Your task to perform on an android device: Go to calendar. Show me events next week Image 0: 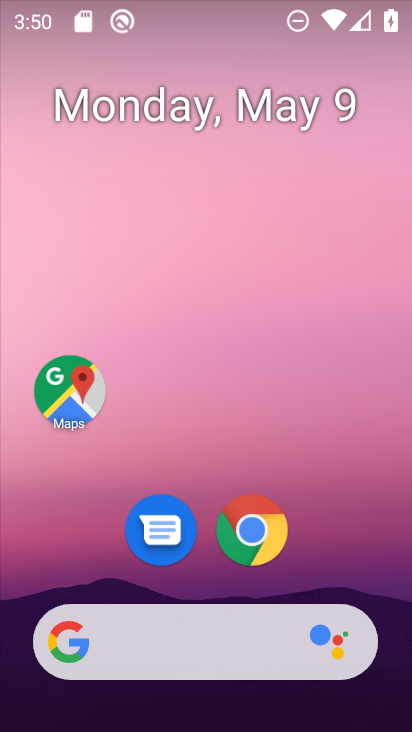
Step 0: press home button
Your task to perform on an android device: Go to calendar. Show me events next week Image 1: 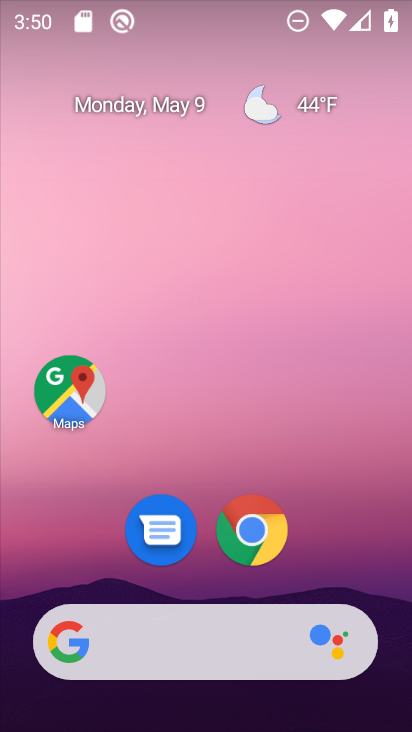
Step 1: drag from (207, 567) to (194, 105)
Your task to perform on an android device: Go to calendar. Show me events next week Image 2: 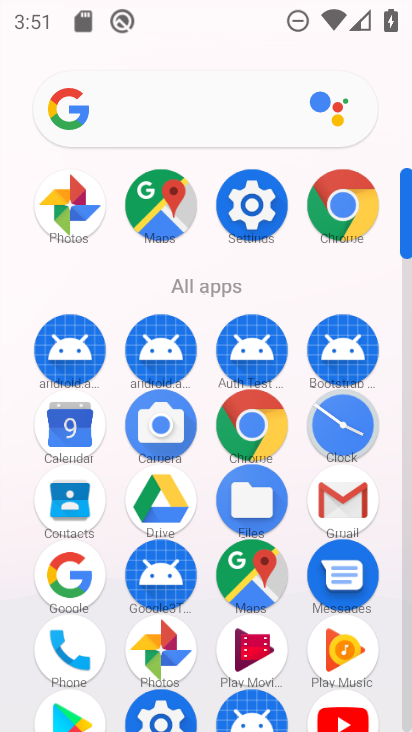
Step 2: click (75, 430)
Your task to perform on an android device: Go to calendar. Show me events next week Image 3: 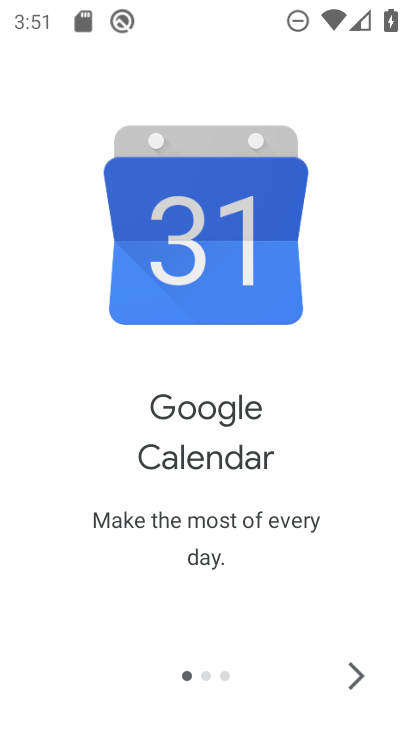
Step 3: click (348, 681)
Your task to perform on an android device: Go to calendar. Show me events next week Image 4: 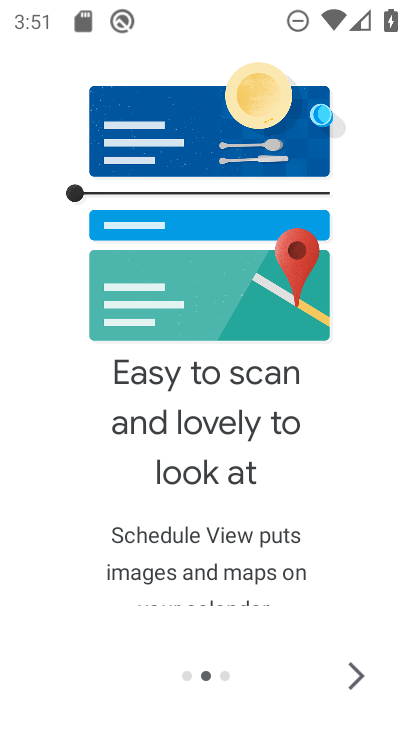
Step 4: click (361, 663)
Your task to perform on an android device: Go to calendar. Show me events next week Image 5: 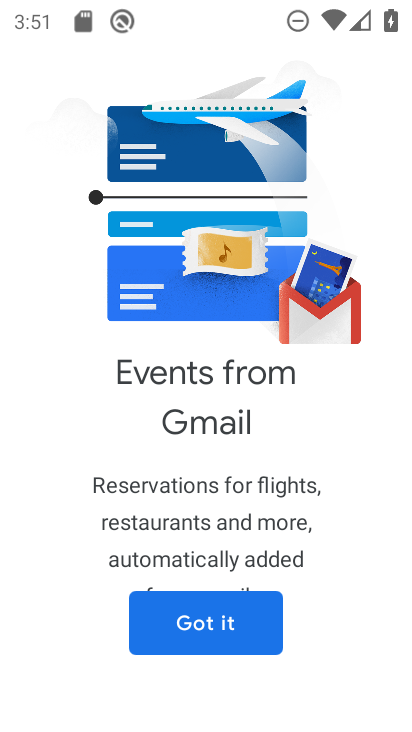
Step 5: click (218, 620)
Your task to perform on an android device: Go to calendar. Show me events next week Image 6: 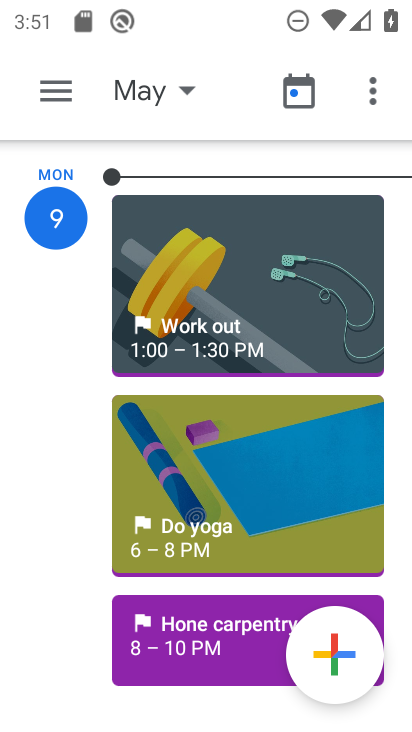
Step 6: click (59, 85)
Your task to perform on an android device: Go to calendar. Show me events next week Image 7: 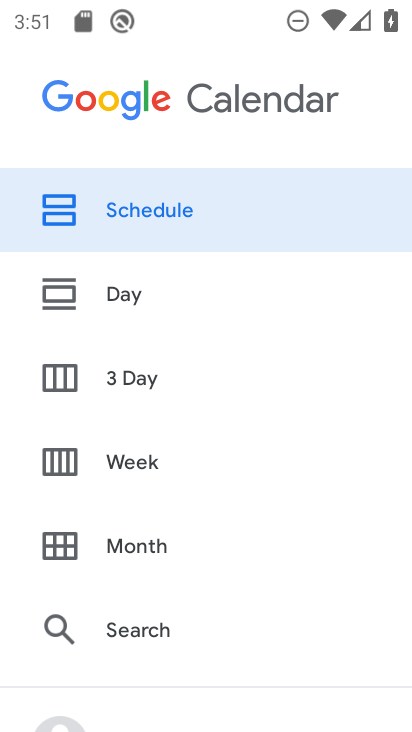
Step 7: click (90, 458)
Your task to perform on an android device: Go to calendar. Show me events next week Image 8: 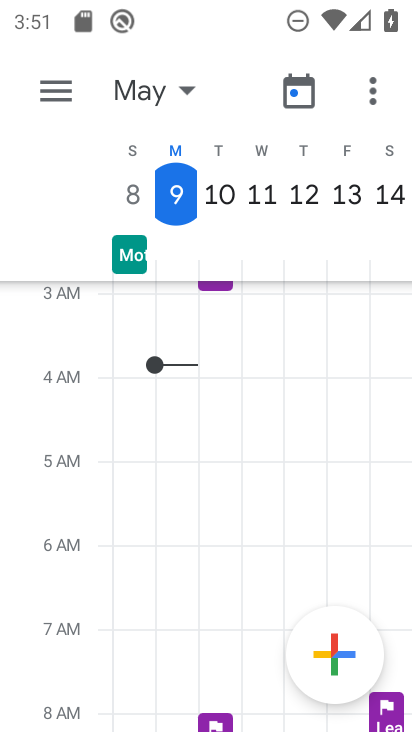
Step 8: drag from (396, 189) to (109, 178)
Your task to perform on an android device: Go to calendar. Show me events next week Image 9: 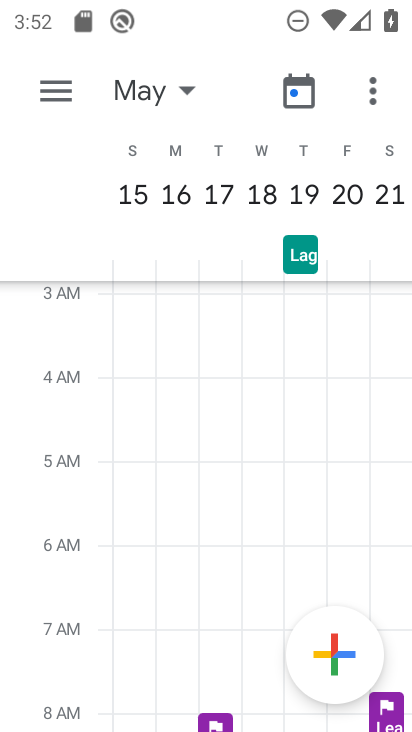
Step 9: click (137, 190)
Your task to perform on an android device: Go to calendar. Show me events next week Image 10: 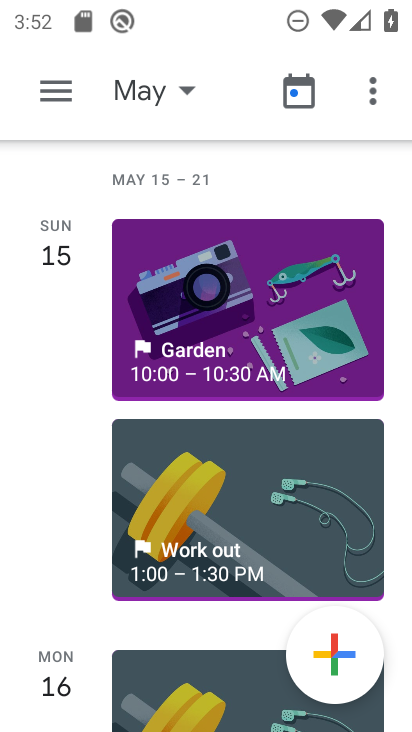
Step 10: click (47, 90)
Your task to perform on an android device: Go to calendar. Show me events next week Image 11: 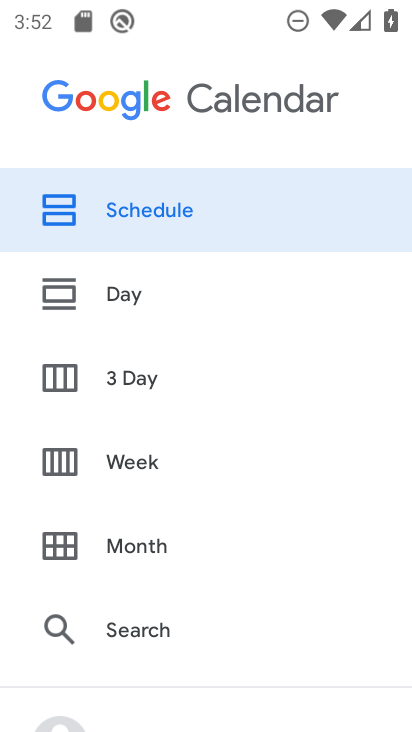
Step 11: drag from (93, 711) to (103, 190)
Your task to perform on an android device: Go to calendar. Show me events next week Image 12: 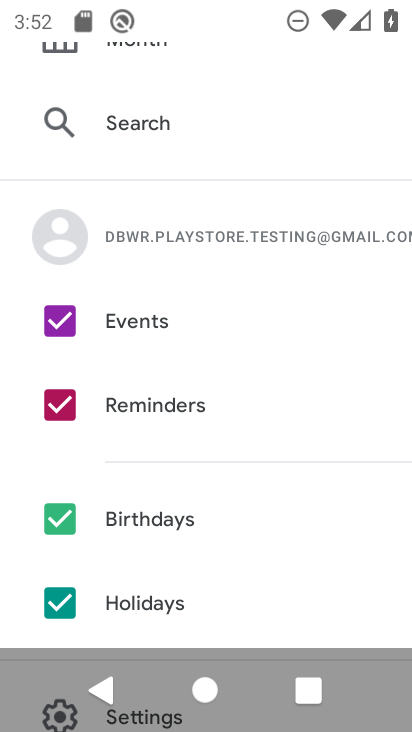
Step 12: click (53, 404)
Your task to perform on an android device: Go to calendar. Show me events next week Image 13: 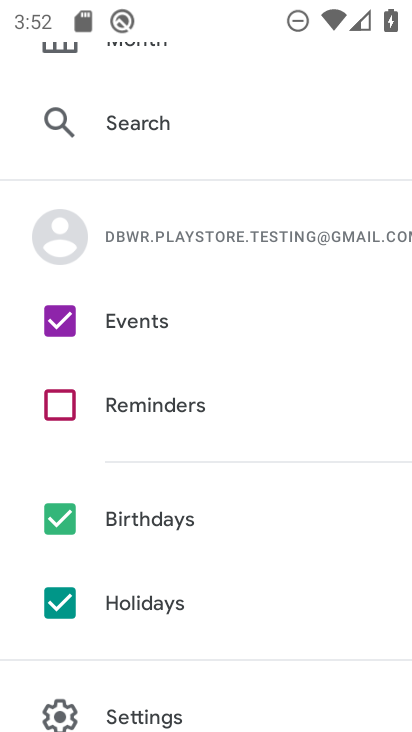
Step 13: click (57, 517)
Your task to perform on an android device: Go to calendar. Show me events next week Image 14: 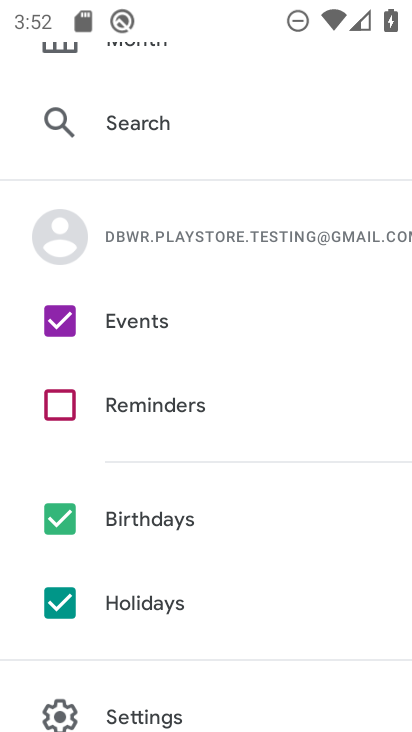
Step 14: click (63, 599)
Your task to perform on an android device: Go to calendar. Show me events next week Image 15: 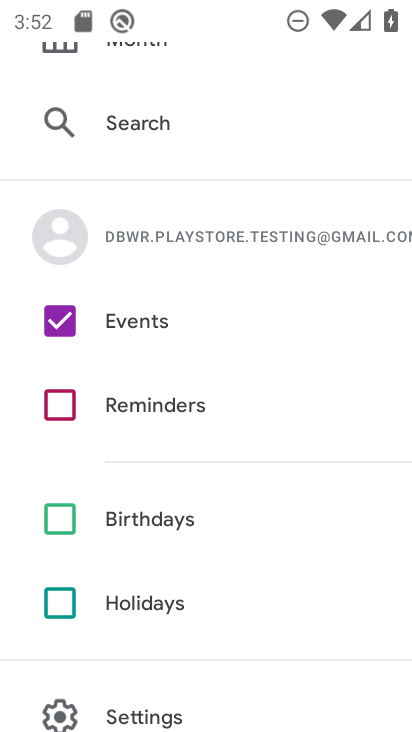
Step 15: drag from (124, 131) to (80, 673)
Your task to perform on an android device: Go to calendar. Show me events next week Image 16: 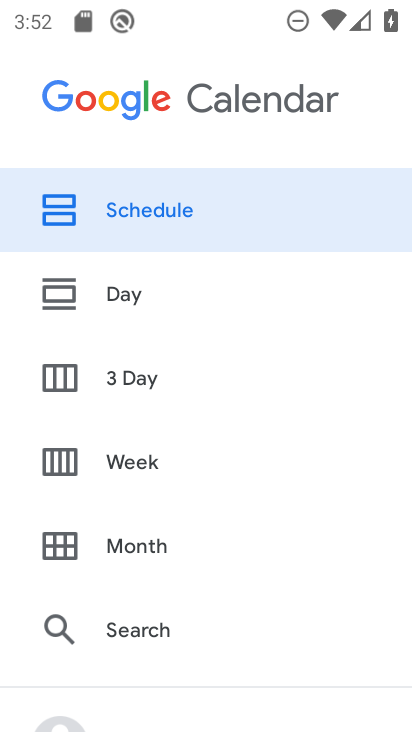
Step 16: click (90, 211)
Your task to perform on an android device: Go to calendar. Show me events next week Image 17: 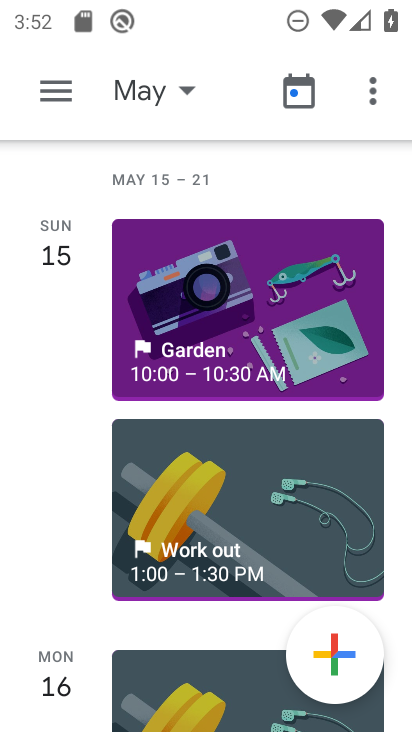
Step 17: task complete